Your task to perform on an android device: Open Android settings Image 0: 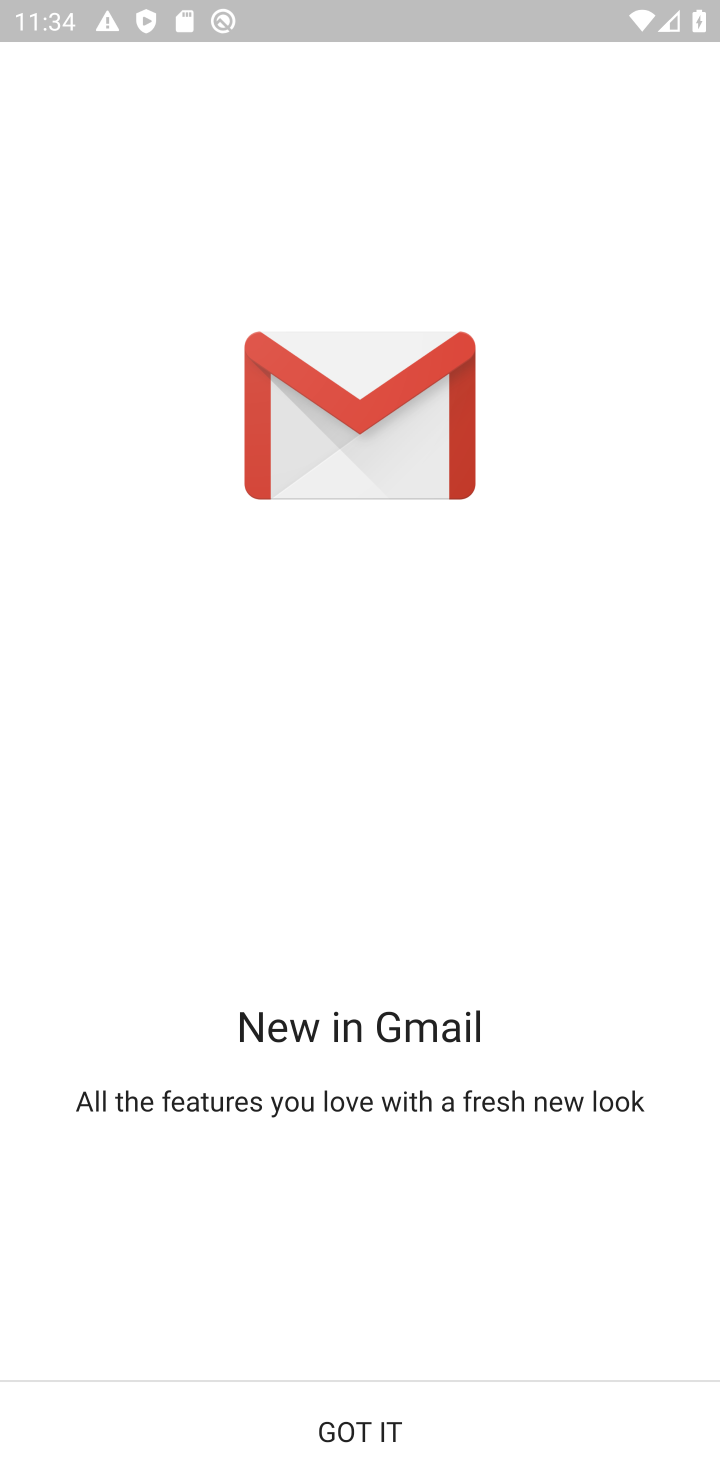
Step 0: press home button
Your task to perform on an android device: Open Android settings Image 1: 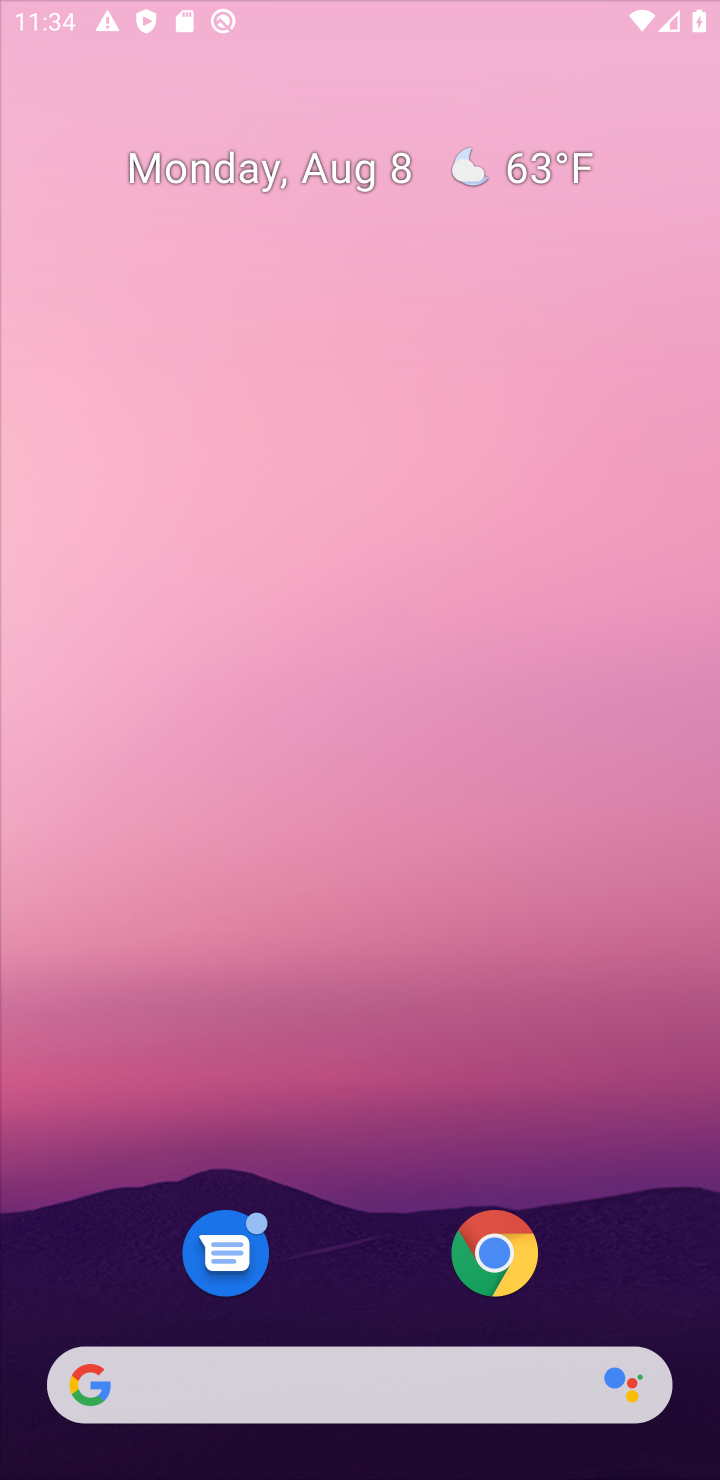
Step 1: drag from (546, 818) to (316, 104)
Your task to perform on an android device: Open Android settings Image 2: 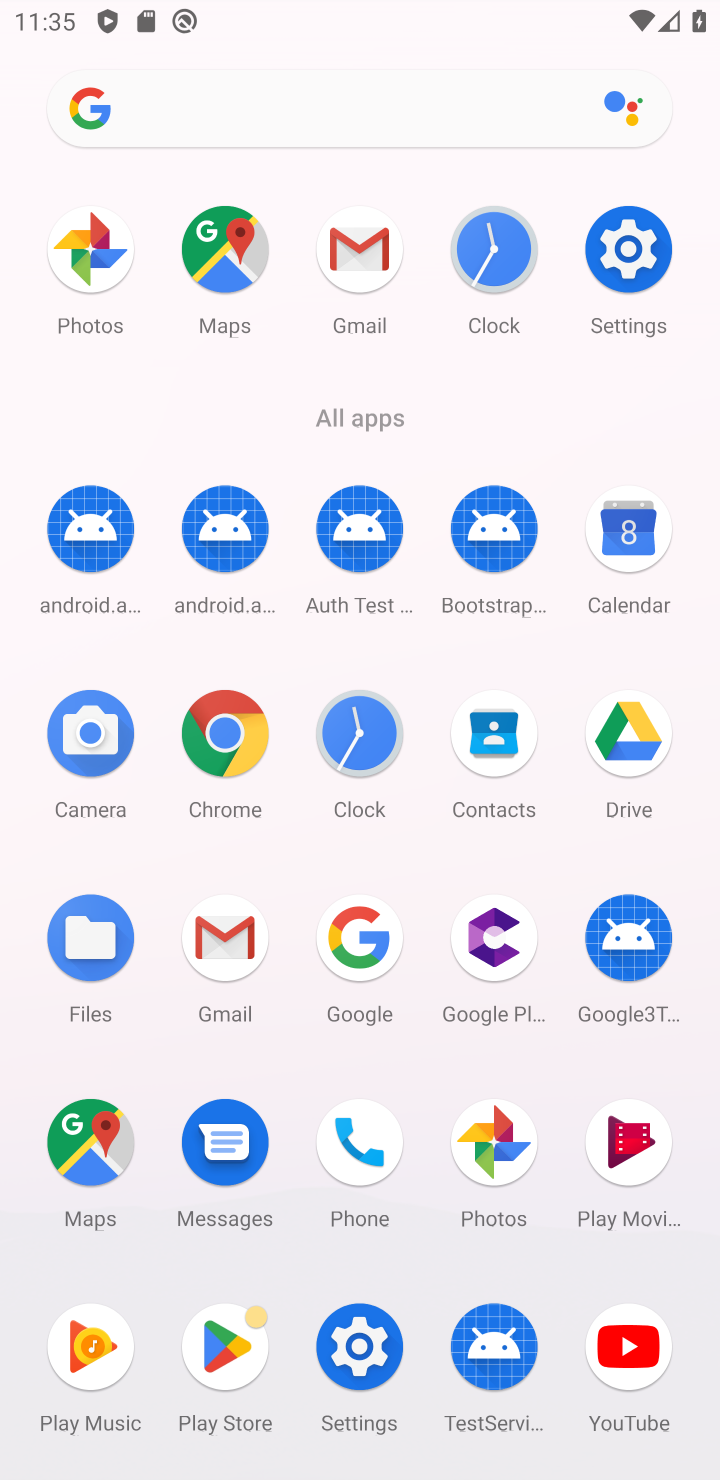
Step 2: click (383, 1312)
Your task to perform on an android device: Open Android settings Image 3: 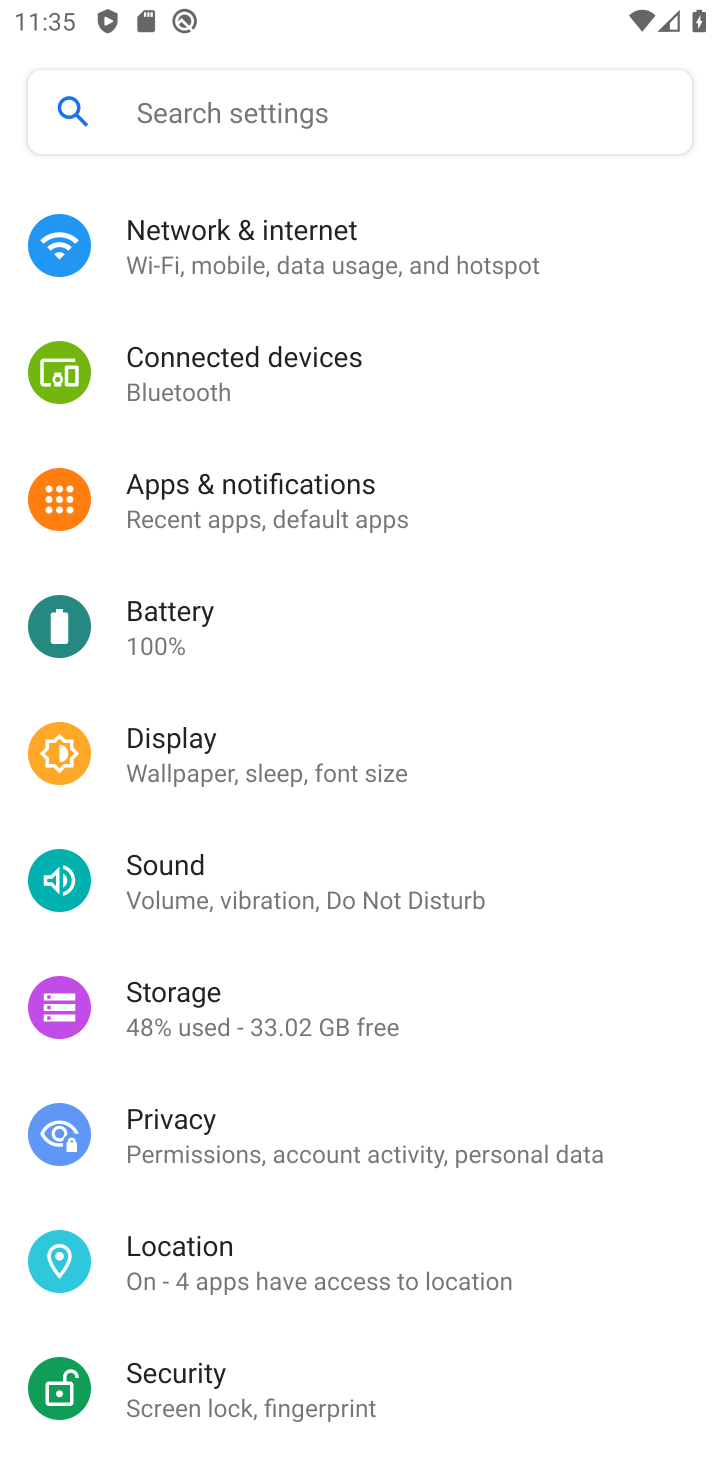
Step 3: task complete